Your task to perform on an android device: open app "Upside-Cash back on gas & food" (install if not already installed) Image 0: 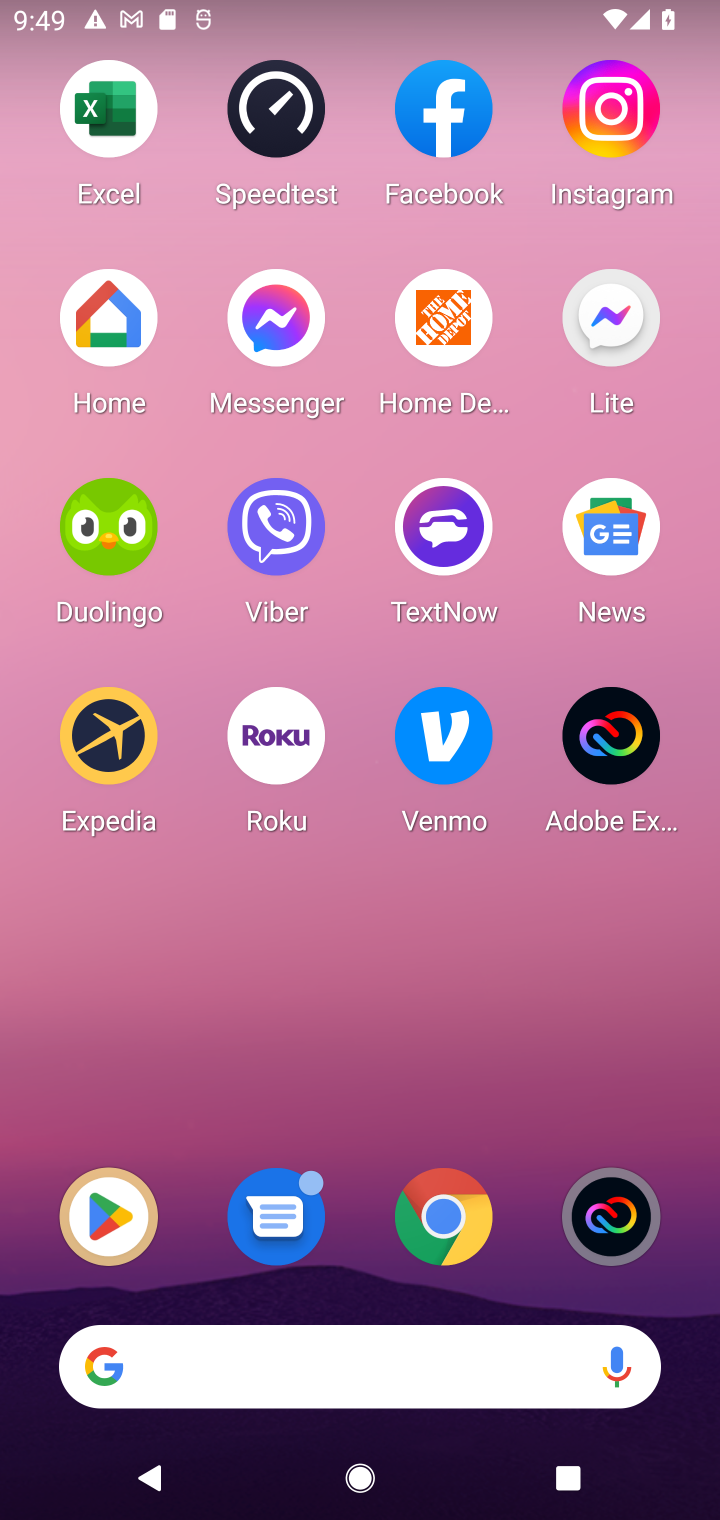
Step 0: click (101, 1211)
Your task to perform on an android device: open app "Upside-Cash back on gas & food" (install if not already installed) Image 1: 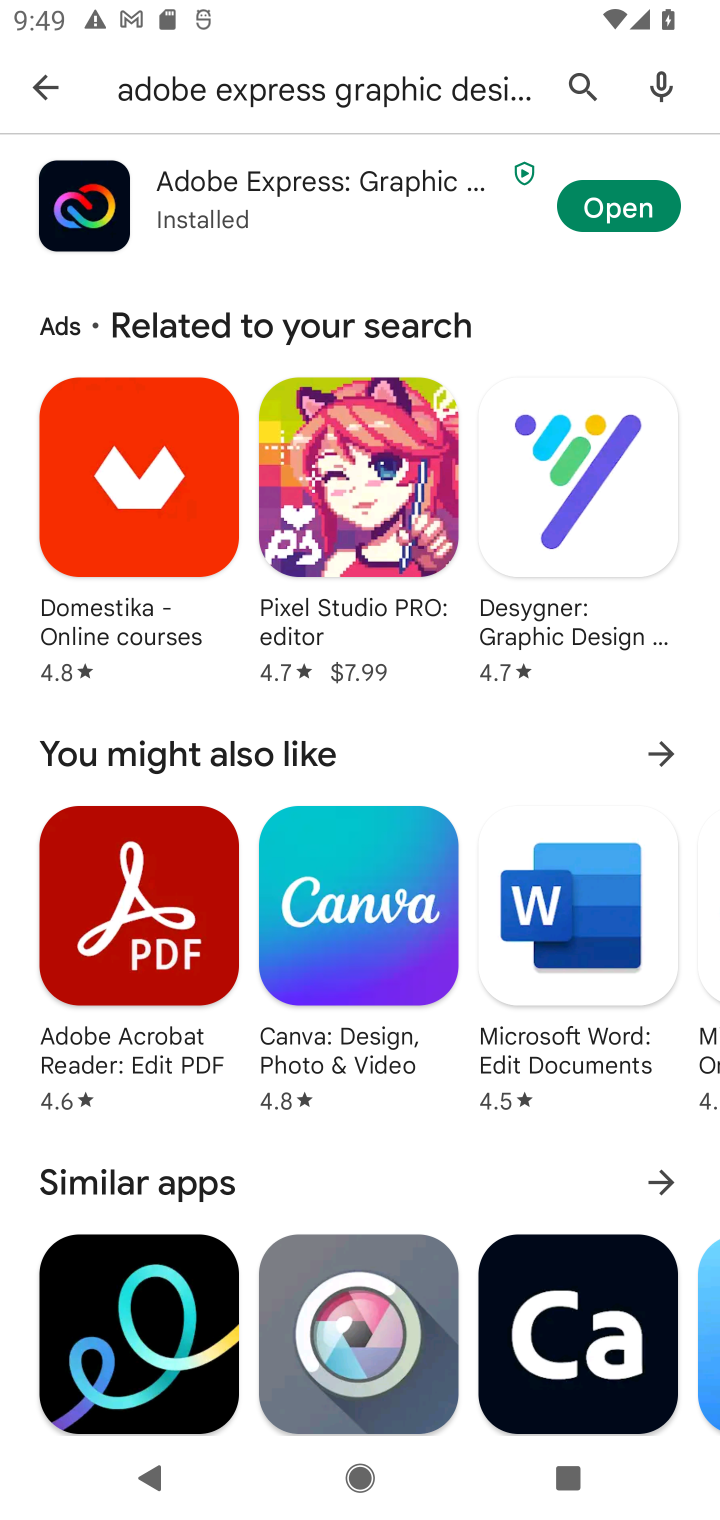
Step 1: click (571, 83)
Your task to perform on an android device: open app "Upside-Cash back on gas & food" (install if not already installed) Image 2: 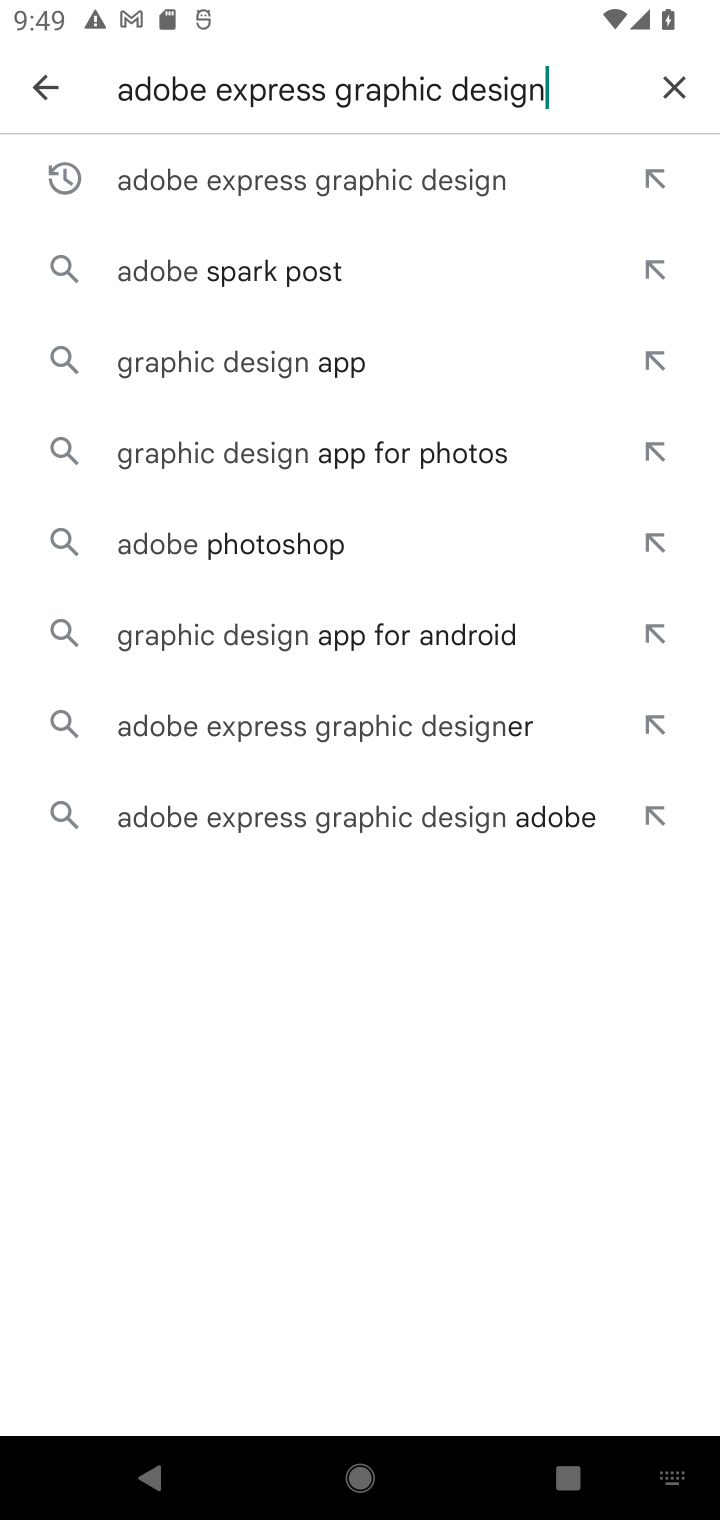
Step 2: click (658, 94)
Your task to perform on an android device: open app "Upside-Cash back on gas & food" (install if not already installed) Image 3: 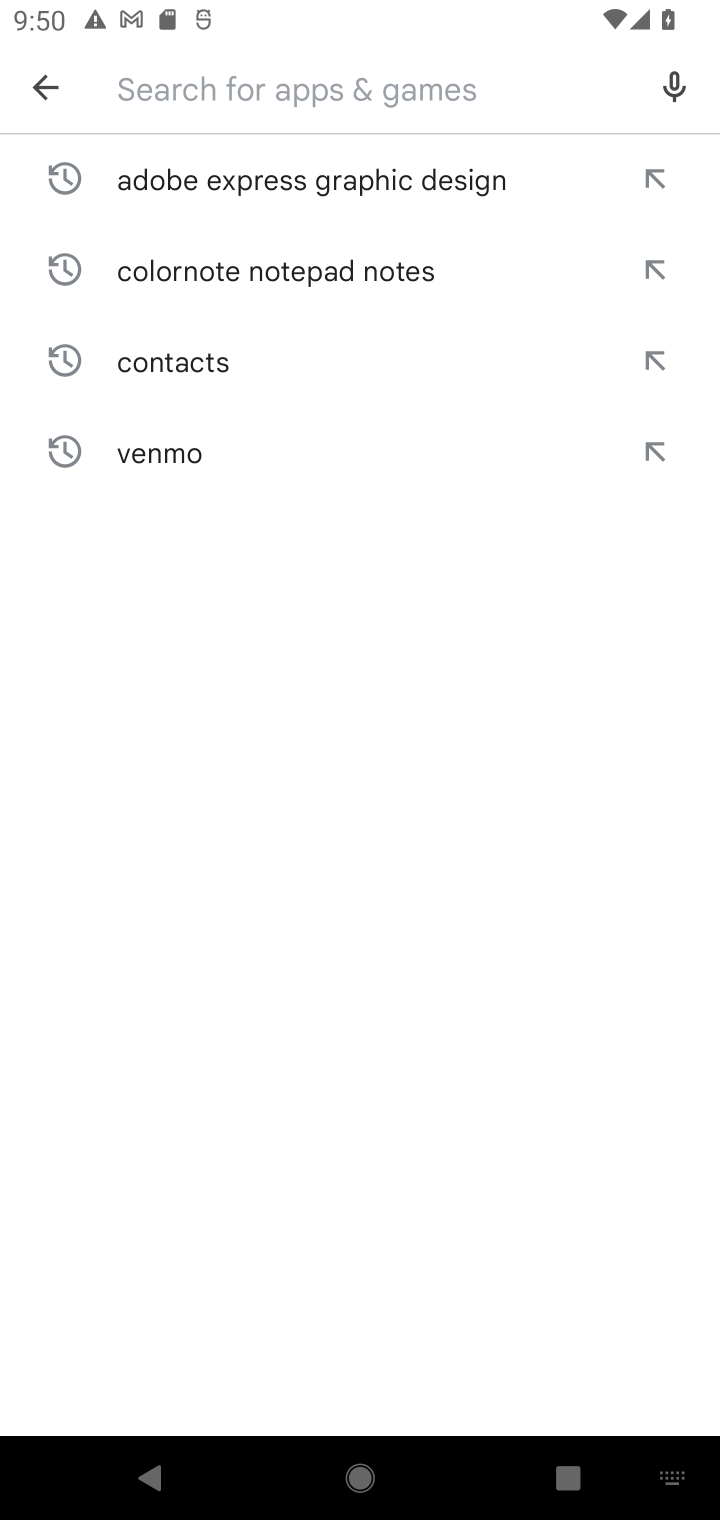
Step 3: type "Upside-Cash back on gas & food"
Your task to perform on an android device: open app "Upside-Cash back on gas & food" (install if not already installed) Image 4: 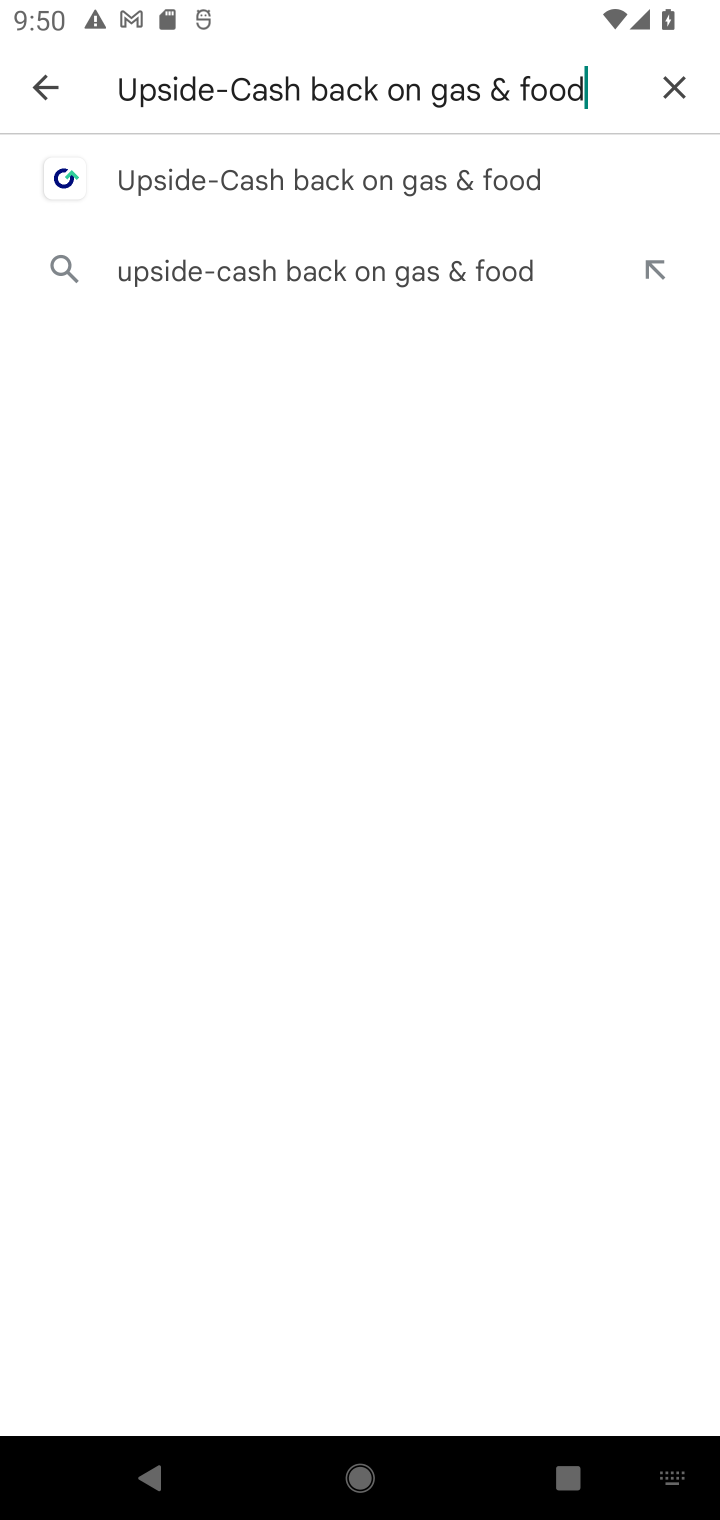
Step 4: click (280, 172)
Your task to perform on an android device: open app "Upside-Cash back on gas & food" (install if not already installed) Image 5: 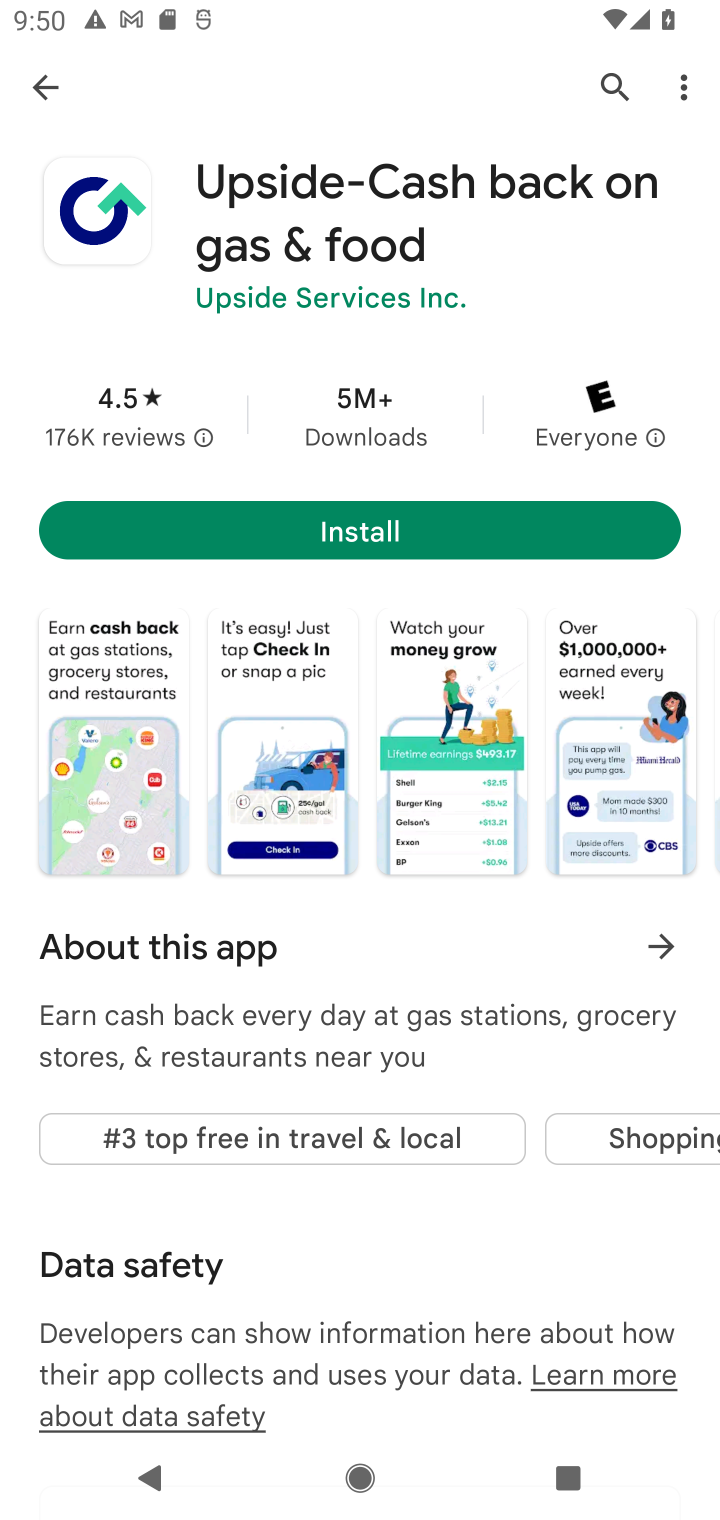
Step 5: click (387, 519)
Your task to perform on an android device: open app "Upside-Cash back on gas & food" (install if not already installed) Image 6: 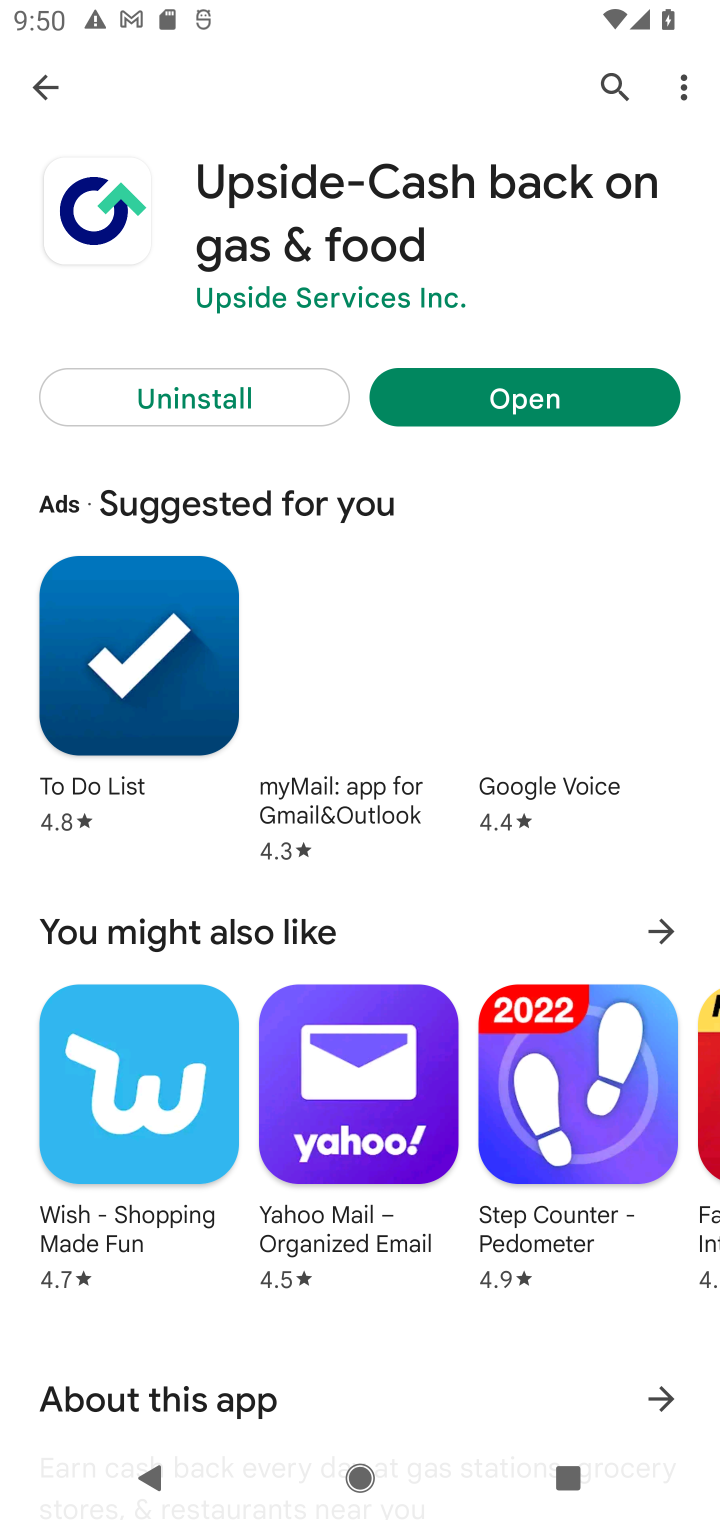
Step 6: click (488, 416)
Your task to perform on an android device: open app "Upside-Cash back on gas & food" (install if not already installed) Image 7: 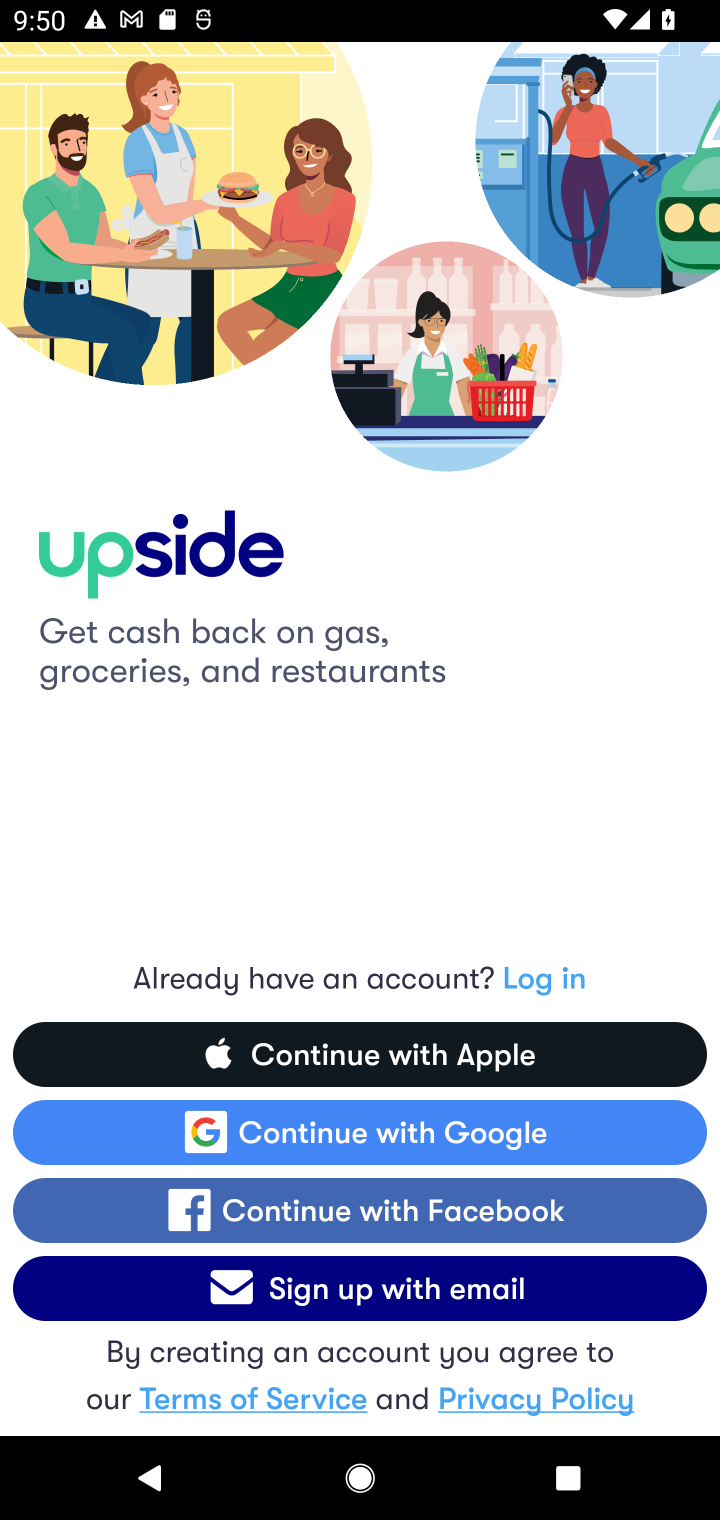
Step 7: task complete